Your task to perform on an android device: uninstall "Google Home" Image 0: 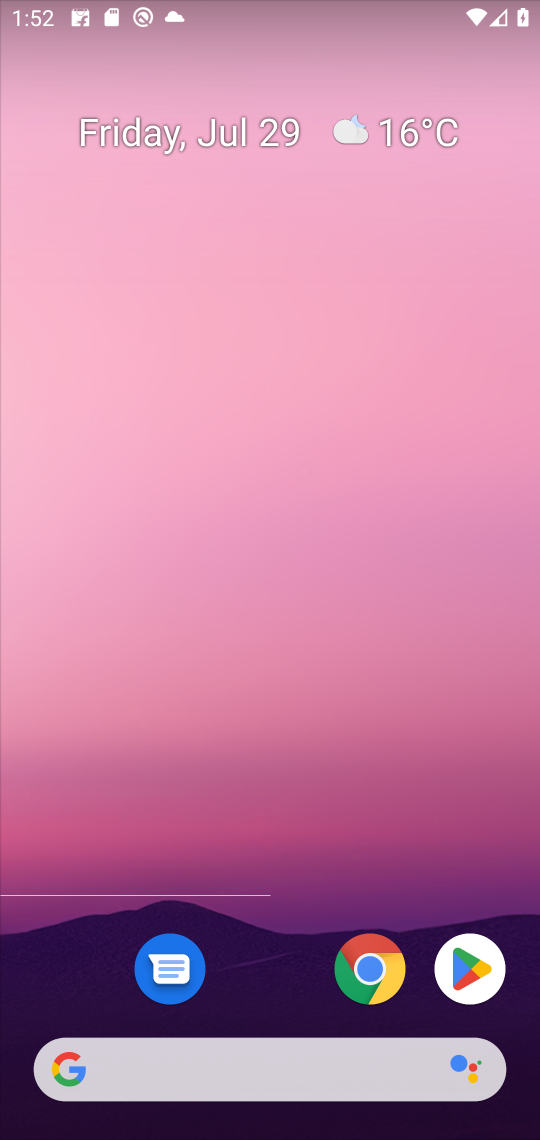
Step 0: press home button
Your task to perform on an android device: uninstall "Google Home" Image 1: 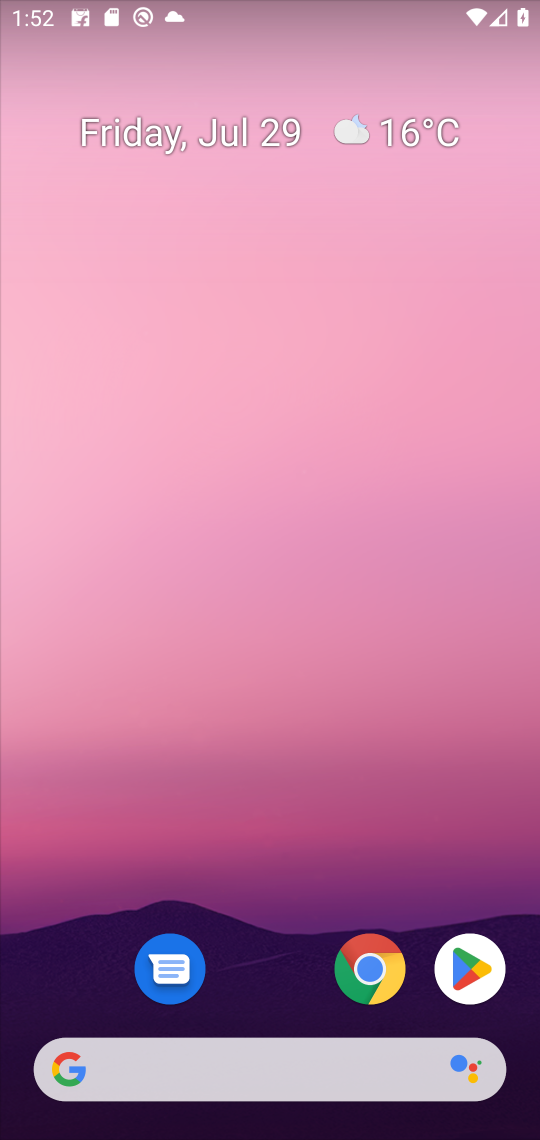
Step 1: click (451, 963)
Your task to perform on an android device: uninstall "Google Home" Image 2: 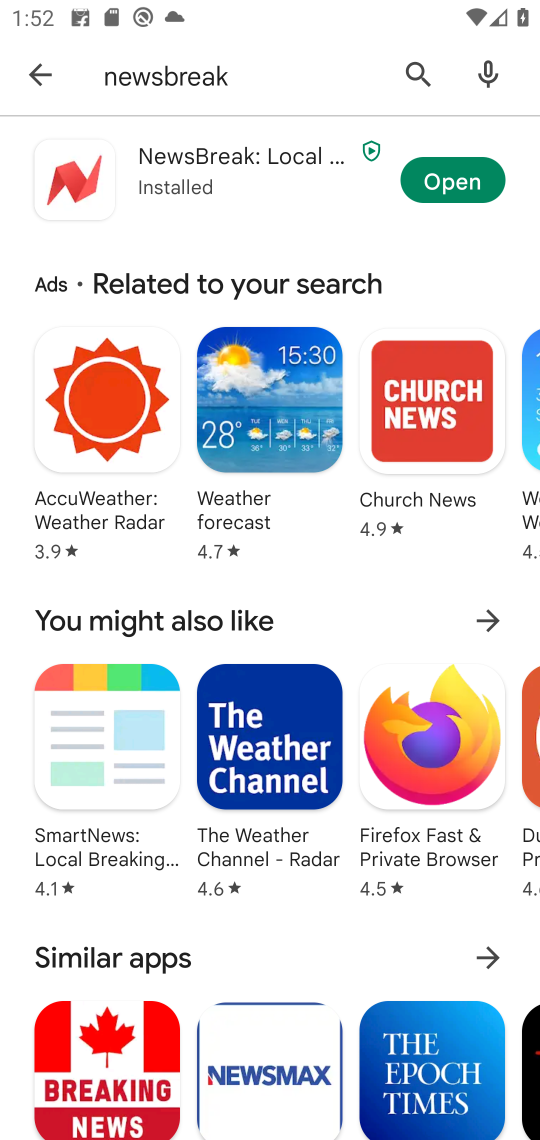
Step 2: click (410, 80)
Your task to perform on an android device: uninstall "Google Home" Image 3: 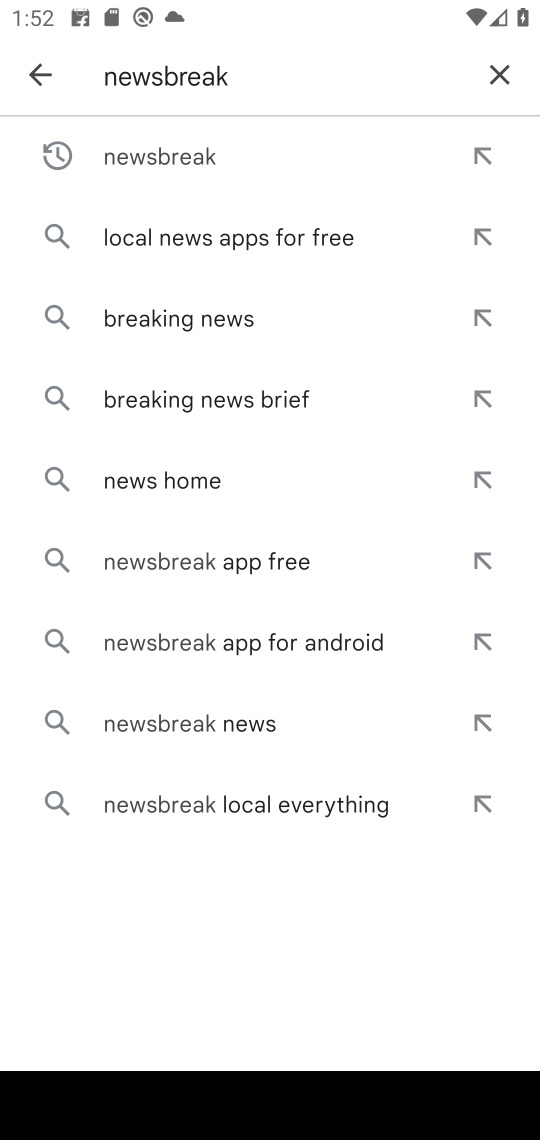
Step 3: click (502, 76)
Your task to perform on an android device: uninstall "Google Home" Image 4: 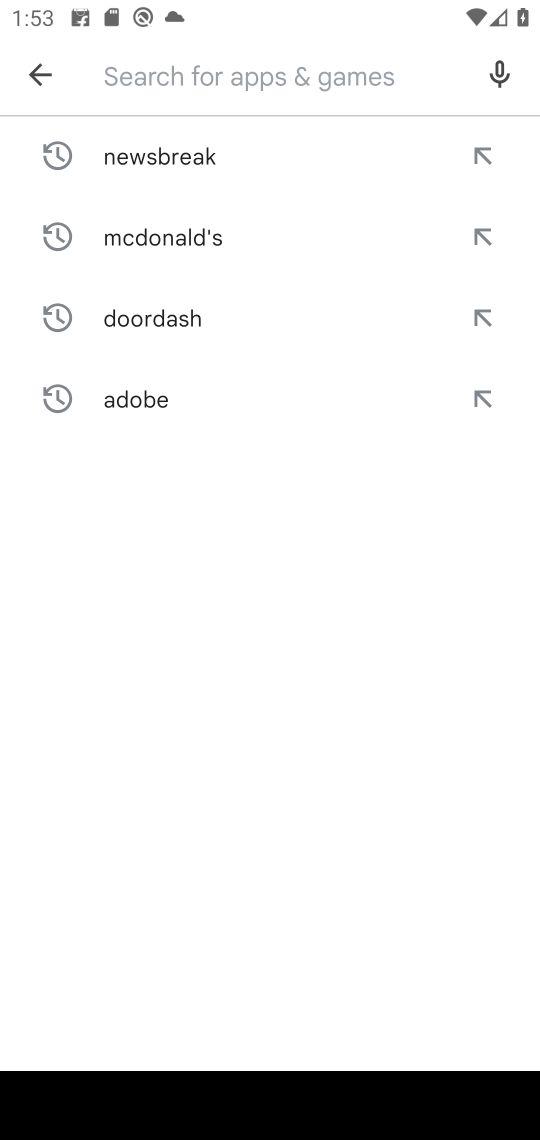
Step 4: type "googlehome"
Your task to perform on an android device: uninstall "Google Home" Image 5: 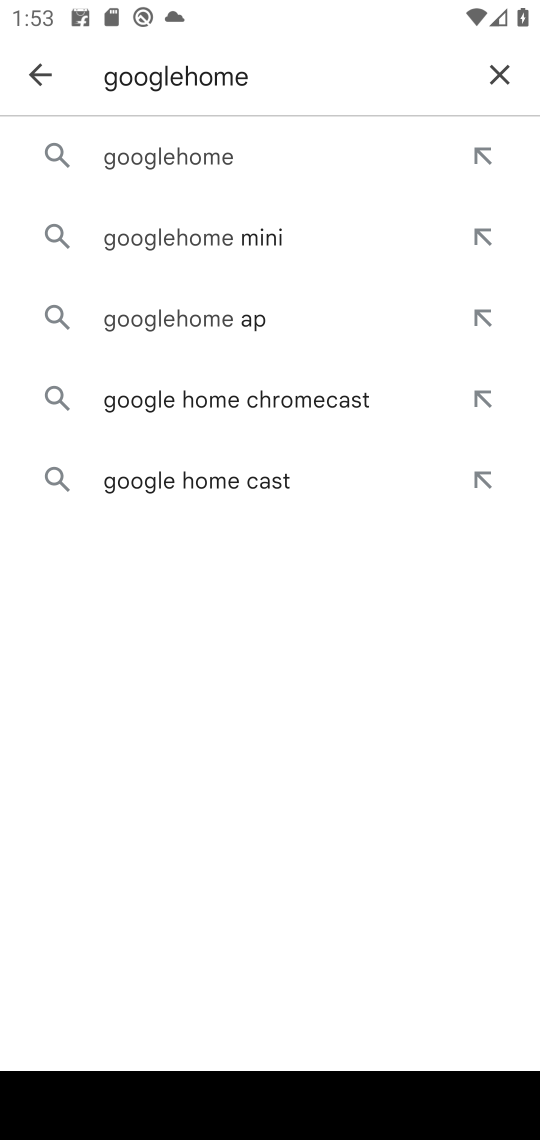
Step 5: click (227, 154)
Your task to perform on an android device: uninstall "Google Home" Image 6: 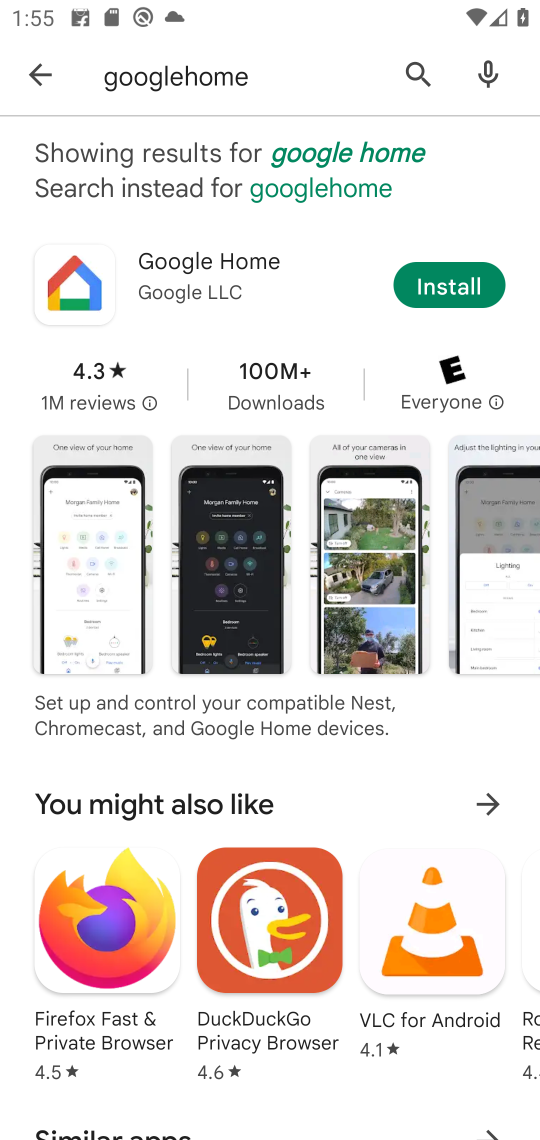
Step 6: task complete